Your task to perform on an android device: Open the phone app and click the voicemail tab. Image 0: 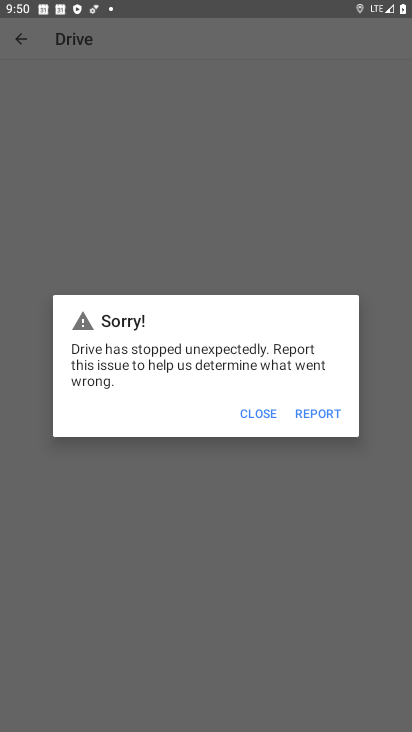
Step 0: drag from (191, 605) to (0, 338)
Your task to perform on an android device: Open the phone app and click the voicemail tab. Image 1: 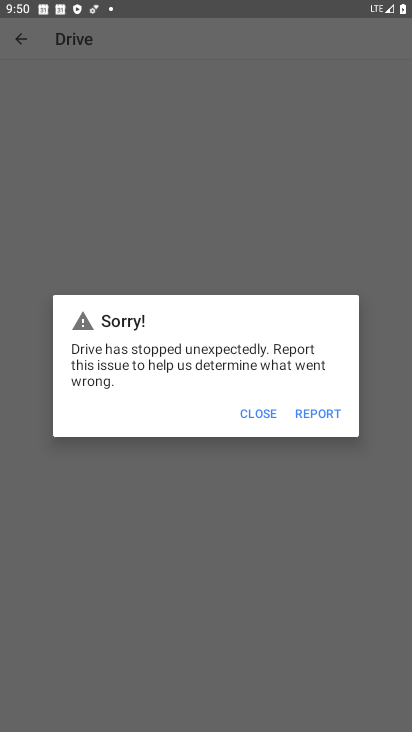
Step 1: press home button
Your task to perform on an android device: Open the phone app and click the voicemail tab. Image 2: 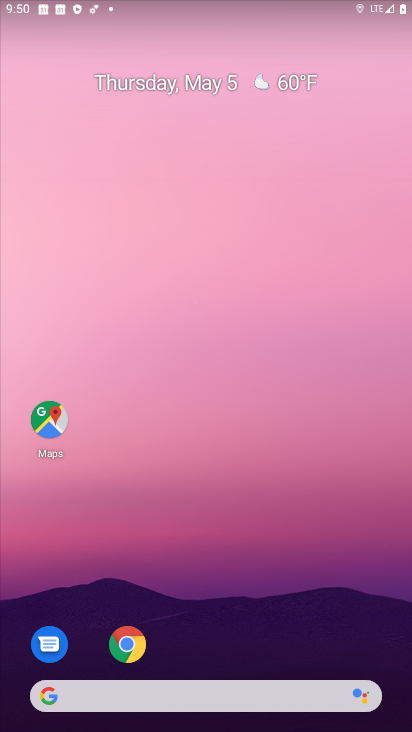
Step 2: drag from (203, 634) to (130, 4)
Your task to perform on an android device: Open the phone app and click the voicemail tab. Image 3: 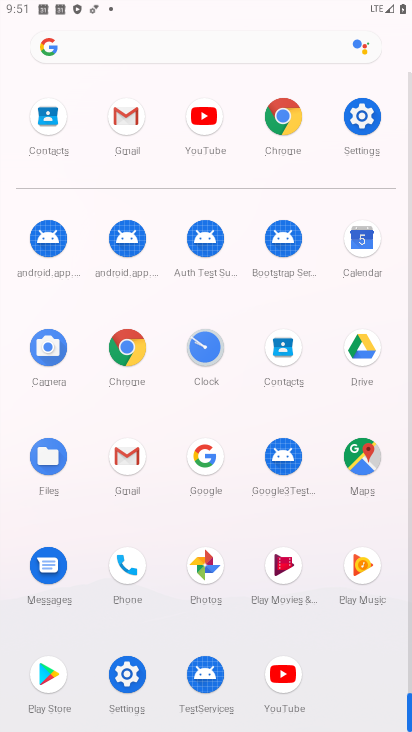
Step 3: click (123, 571)
Your task to perform on an android device: Open the phone app and click the voicemail tab. Image 4: 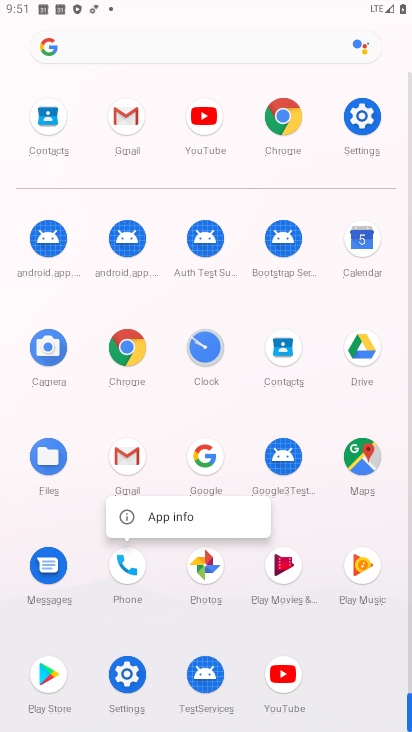
Step 4: click (139, 521)
Your task to perform on an android device: Open the phone app and click the voicemail tab. Image 5: 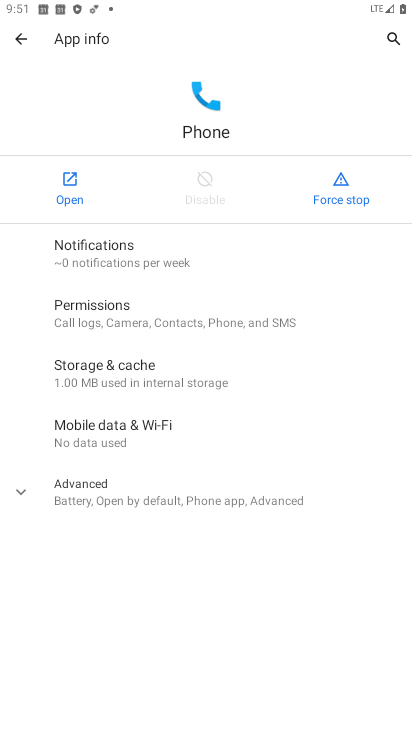
Step 5: click (73, 183)
Your task to perform on an android device: Open the phone app and click the voicemail tab. Image 6: 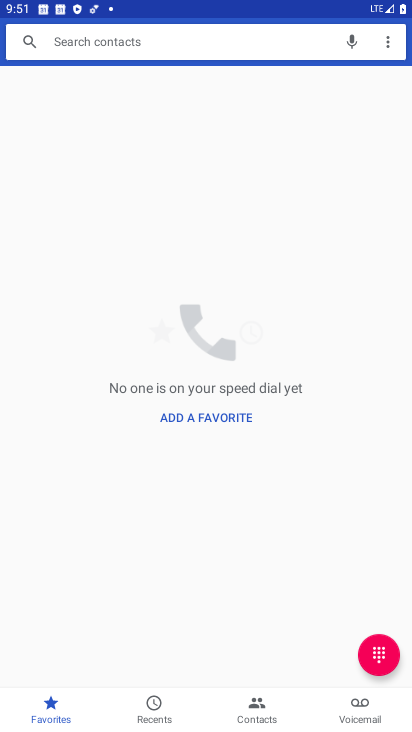
Step 6: click (348, 714)
Your task to perform on an android device: Open the phone app and click the voicemail tab. Image 7: 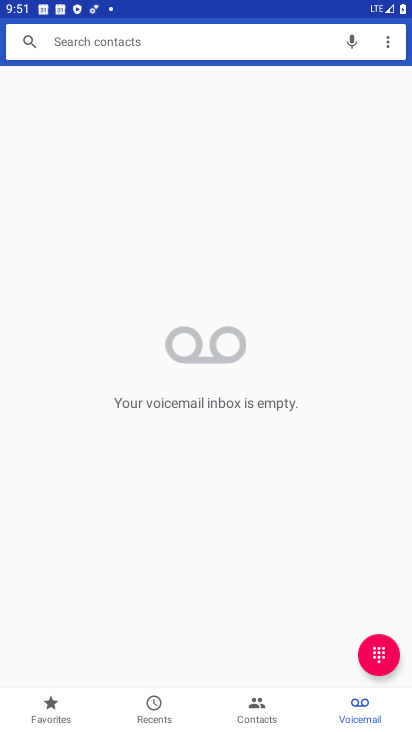
Step 7: task complete